Your task to perform on an android device: turn off picture-in-picture Image 0: 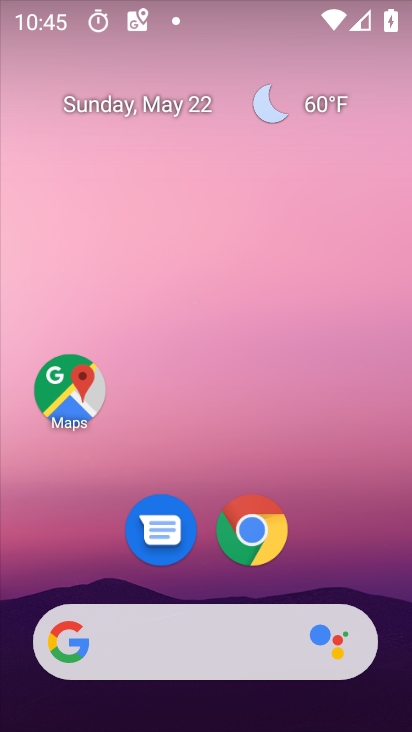
Step 0: click (253, 523)
Your task to perform on an android device: turn off picture-in-picture Image 1: 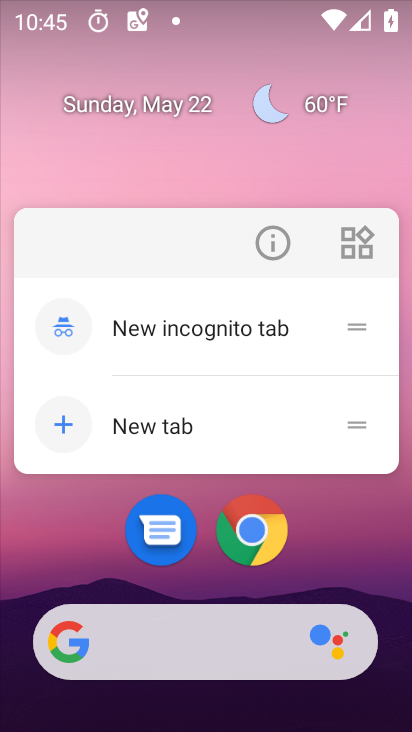
Step 1: click (274, 233)
Your task to perform on an android device: turn off picture-in-picture Image 2: 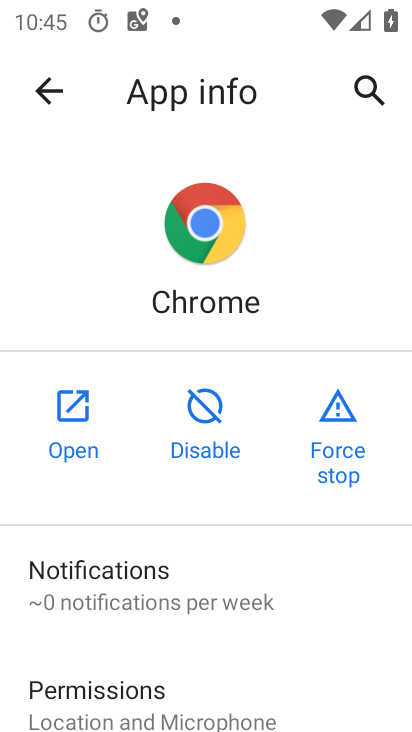
Step 2: drag from (242, 670) to (272, 326)
Your task to perform on an android device: turn off picture-in-picture Image 3: 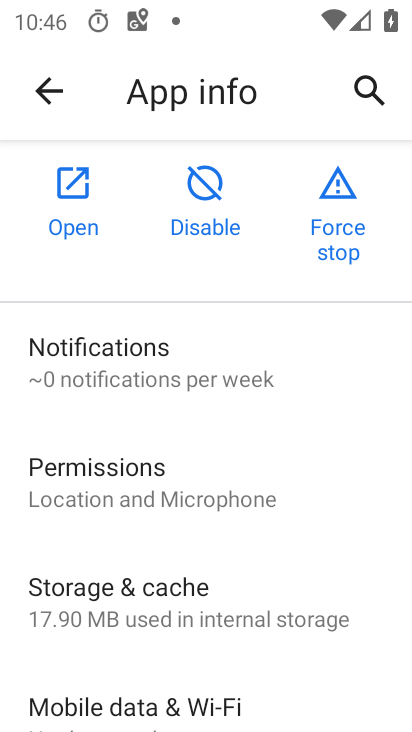
Step 3: drag from (320, 657) to (318, 267)
Your task to perform on an android device: turn off picture-in-picture Image 4: 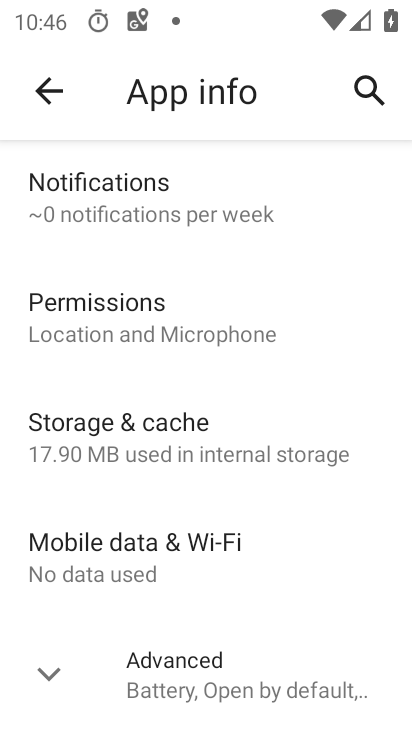
Step 4: click (44, 664)
Your task to perform on an android device: turn off picture-in-picture Image 5: 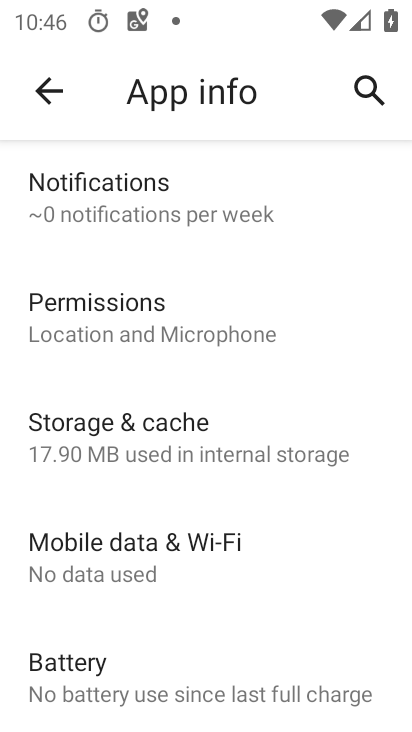
Step 5: drag from (280, 640) to (275, 315)
Your task to perform on an android device: turn off picture-in-picture Image 6: 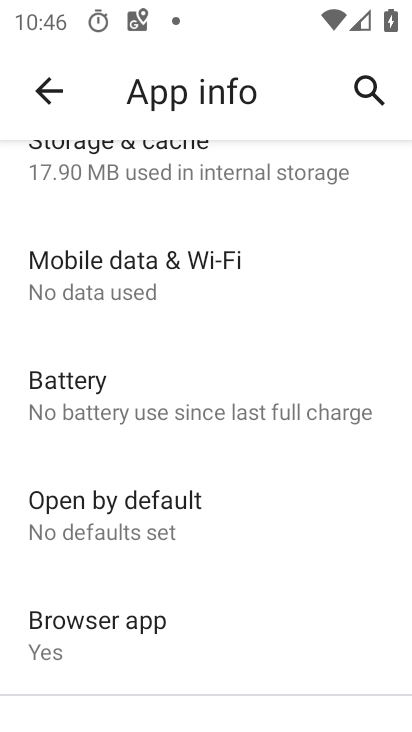
Step 6: drag from (229, 692) to (258, 420)
Your task to perform on an android device: turn off picture-in-picture Image 7: 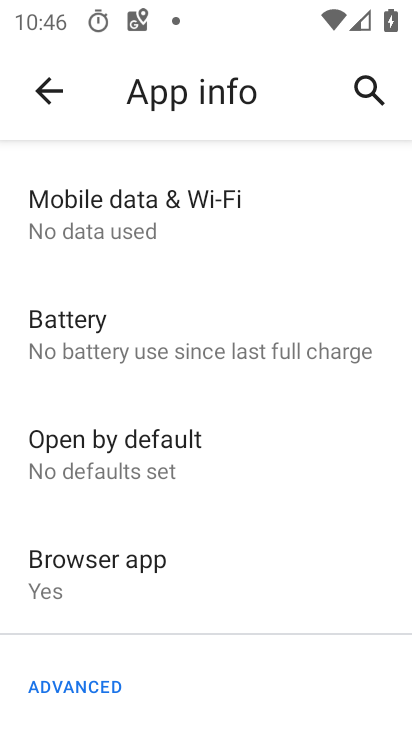
Step 7: drag from (294, 674) to (287, 339)
Your task to perform on an android device: turn off picture-in-picture Image 8: 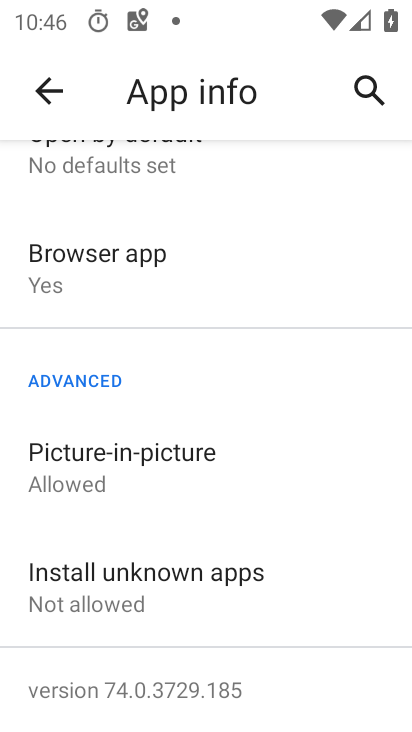
Step 8: click (104, 469)
Your task to perform on an android device: turn off picture-in-picture Image 9: 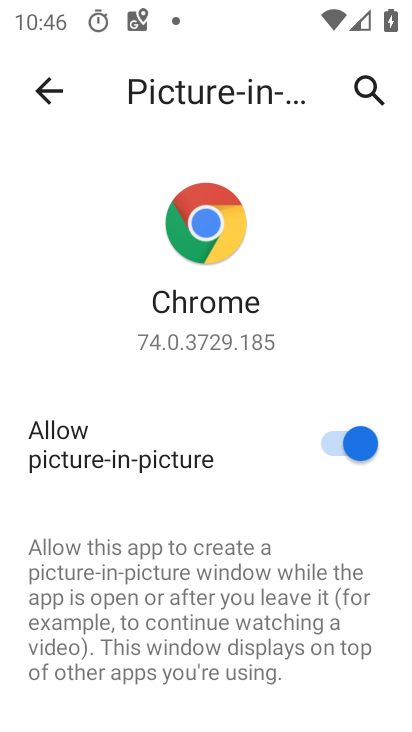
Step 9: click (329, 441)
Your task to perform on an android device: turn off picture-in-picture Image 10: 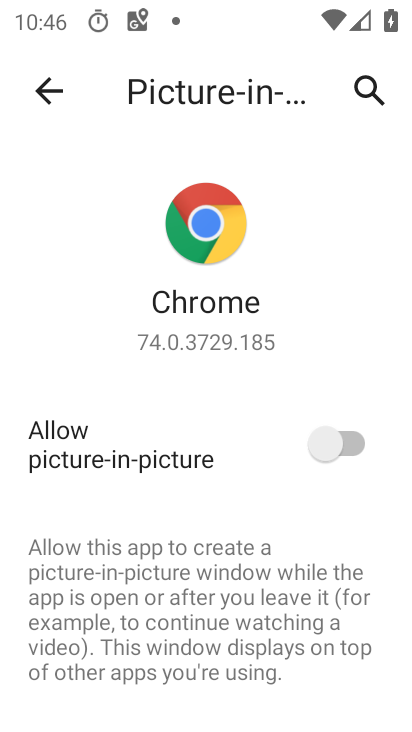
Step 10: task complete